Your task to perform on an android device: stop showing notifications on the lock screen Image 0: 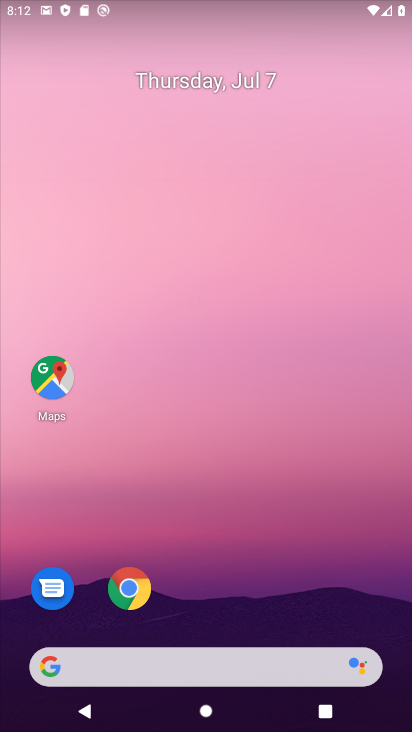
Step 0: drag from (315, 593) to (287, 197)
Your task to perform on an android device: stop showing notifications on the lock screen Image 1: 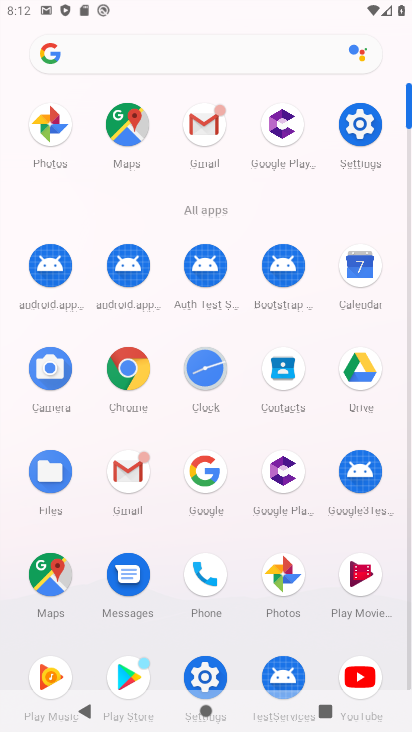
Step 1: click (365, 152)
Your task to perform on an android device: stop showing notifications on the lock screen Image 2: 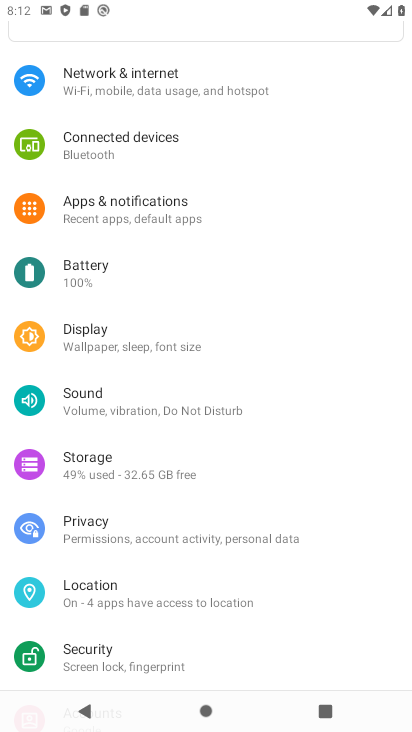
Step 2: click (359, 146)
Your task to perform on an android device: stop showing notifications on the lock screen Image 3: 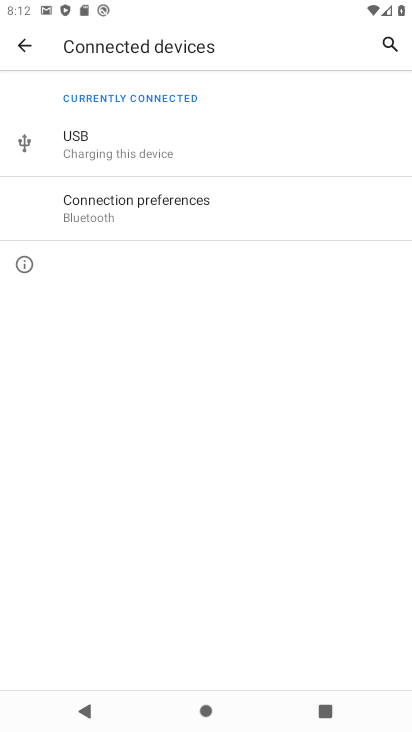
Step 3: click (33, 37)
Your task to perform on an android device: stop showing notifications on the lock screen Image 4: 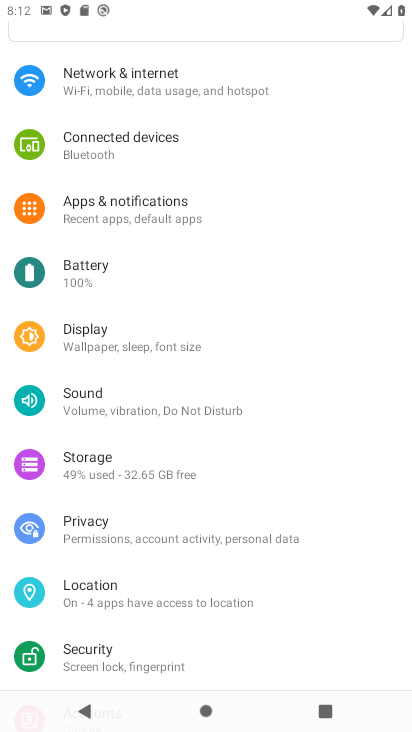
Step 4: click (140, 199)
Your task to perform on an android device: stop showing notifications on the lock screen Image 5: 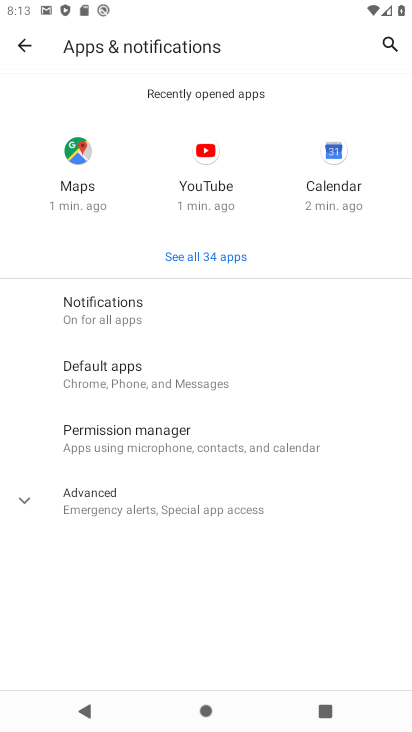
Step 5: click (174, 303)
Your task to perform on an android device: stop showing notifications on the lock screen Image 6: 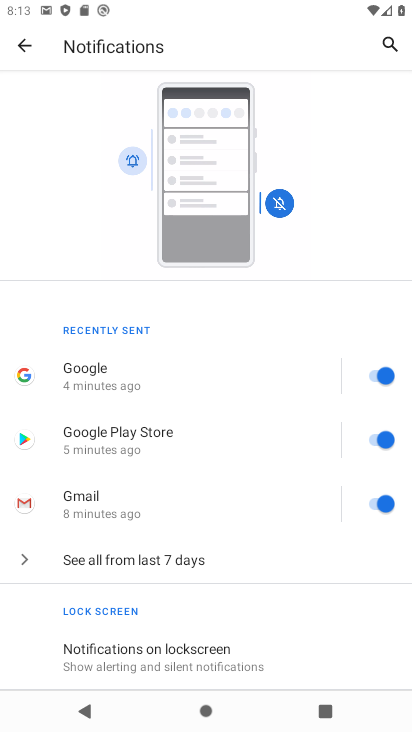
Step 6: click (229, 645)
Your task to perform on an android device: stop showing notifications on the lock screen Image 7: 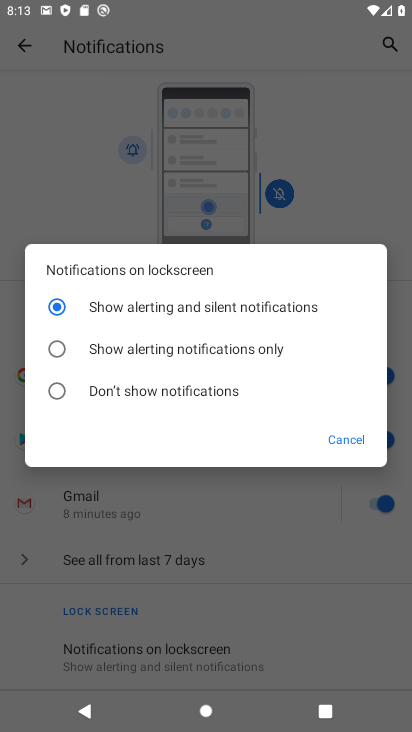
Step 7: click (222, 395)
Your task to perform on an android device: stop showing notifications on the lock screen Image 8: 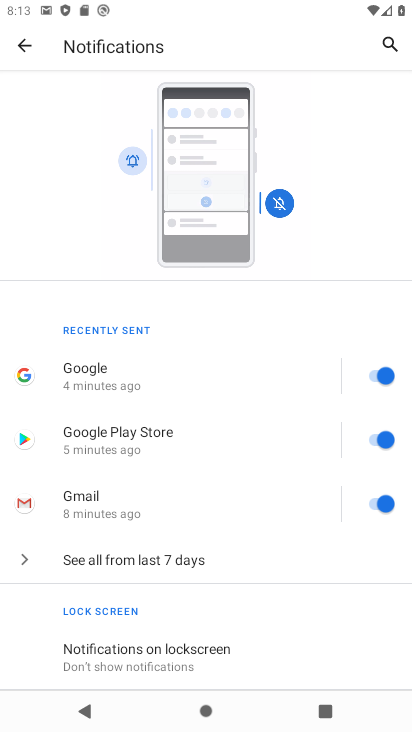
Step 8: task complete